Your task to perform on an android device: Open calendar and show me the fourth week of next month Image 0: 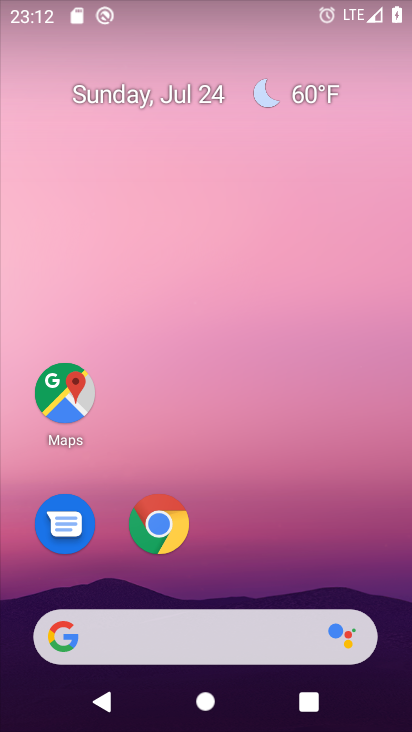
Step 0: drag from (254, 554) to (332, 14)
Your task to perform on an android device: Open calendar and show me the fourth week of next month Image 1: 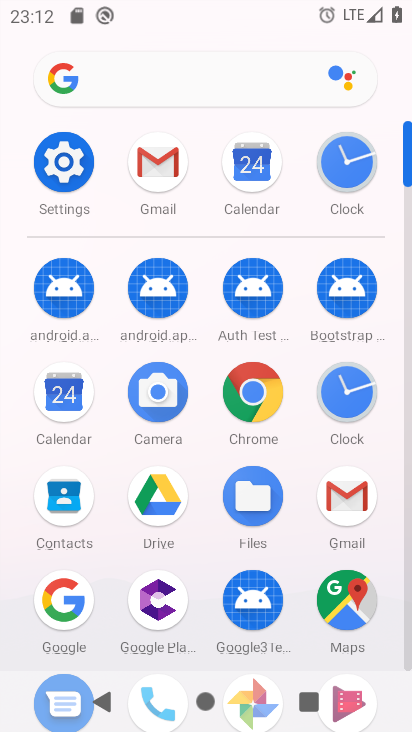
Step 1: click (258, 155)
Your task to perform on an android device: Open calendar and show me the fourth week of next month Image 2: 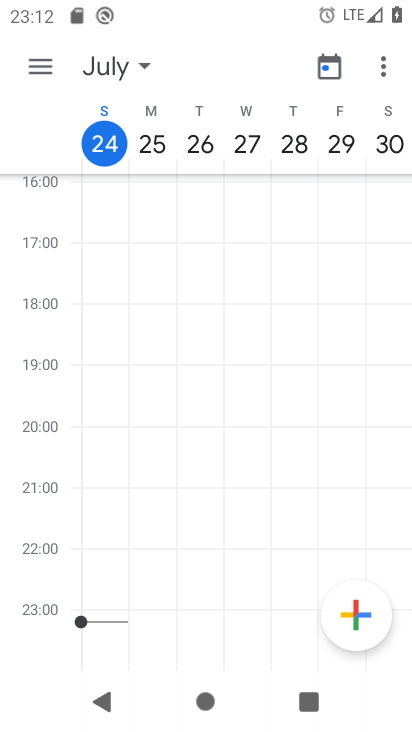
Step 2: click (33, 63)
Your task to perform on an android device: Open calendar and show me the fourth week of next month Image 3: 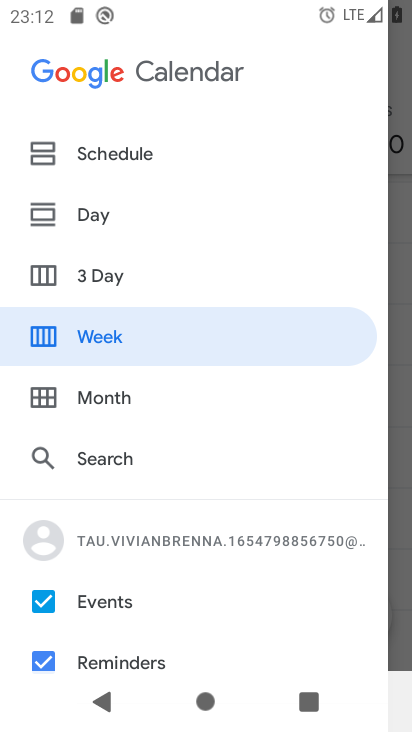
Step 3: click (86, 396)
Your task to perform on an android device: Open calendar and show me the fourth week of next month Image 4: 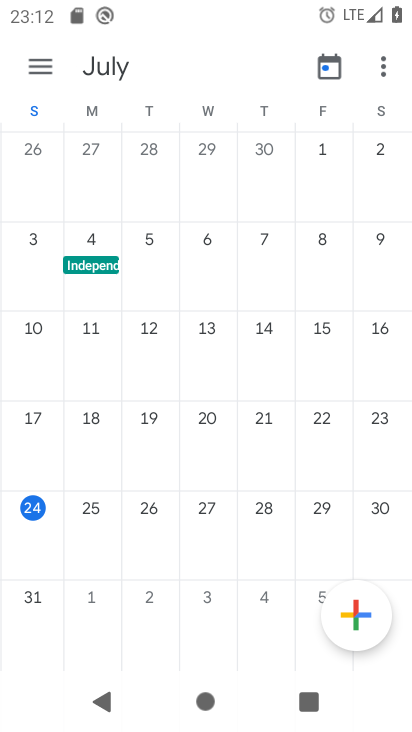
Step 4: drag from (381, 369) to (0, 305)
Your task to perform on an android device: Open calendar and show me the fourth week of next month Image 5: 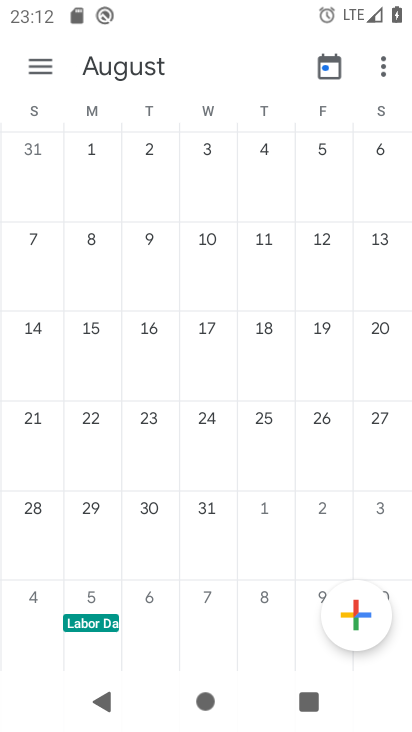
Step 5: click (32, 505)
Your task to perform on an android device: Open calendar and show me the fourth week of next month Image 6: 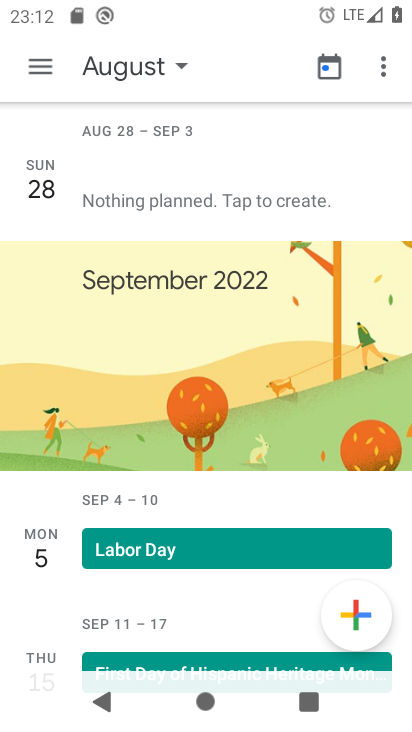
Step 6: click (47, 60)
Your task to perform on an android device: Open calendar and show me the fourth week of next month Image 7: 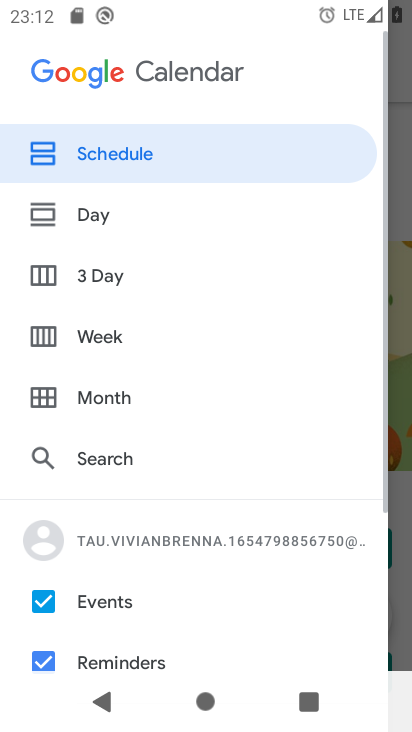
Step 7: click (84, 338)
Your task to perform on an android device: Open calendar and show me the fourth week of next month Image 8: 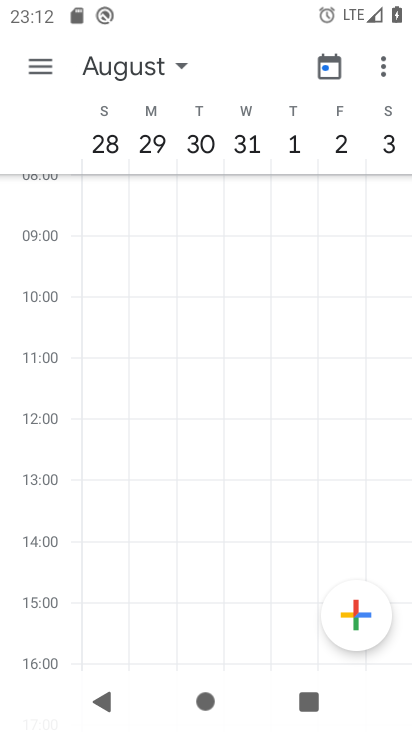
Step 8: task complete